Your task to perform on an android device: all mails in gmail Image 0: 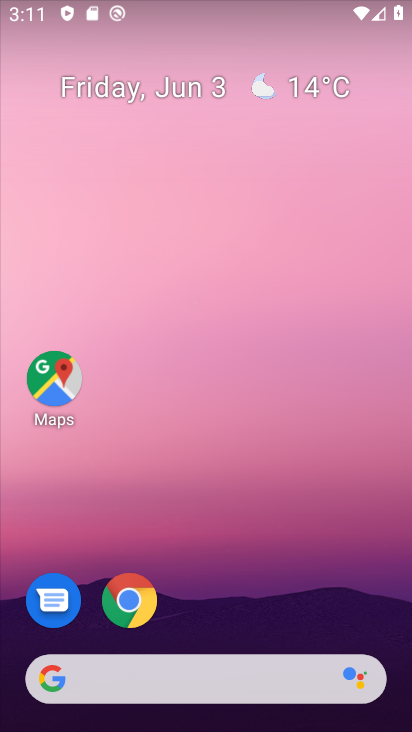
Step 0: drag from (299, 580) to (280, 201)
Your task to perform on an android device: all mails in gmail Image 1: 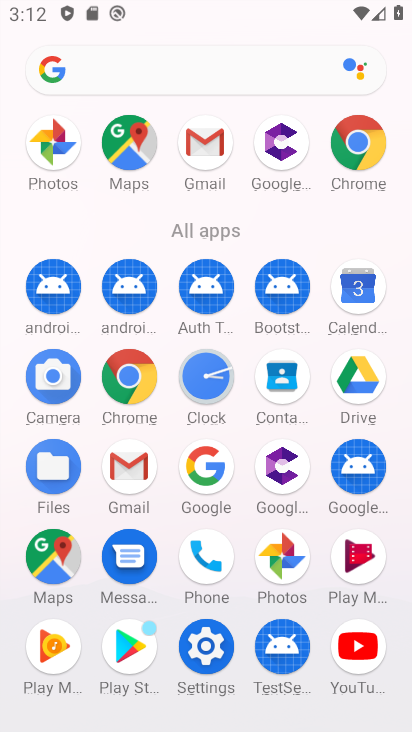
Step 1: click (204, 152)
Your task to perform on an android device: all mails in gmail Image 2: 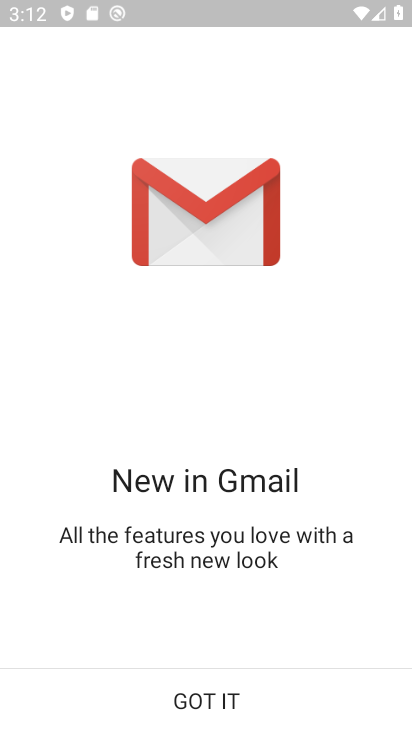
Step 2: click (213, 702)
Your task to perform on an android device: all mails in gmail Image 3: 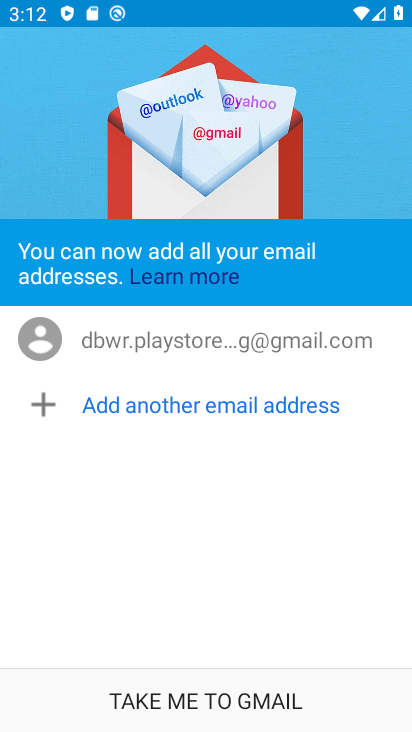
Step 3: click (213, 702)
Your task to perform on an android device: all mails in gmail Image 4: 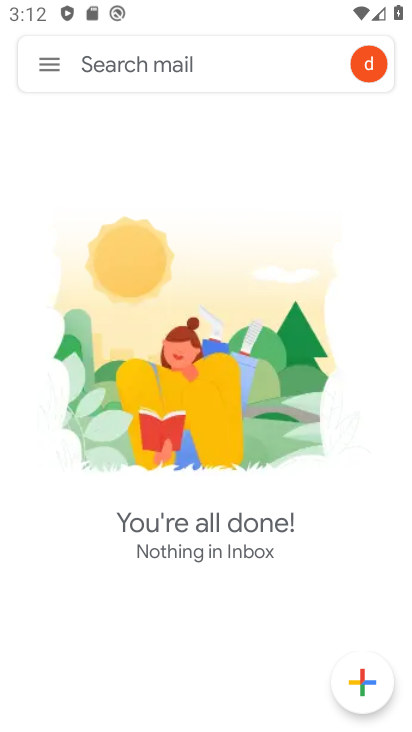
Step 4: click (54, 73)
Your task to perform on an android device: all mails in gmail Image 5: 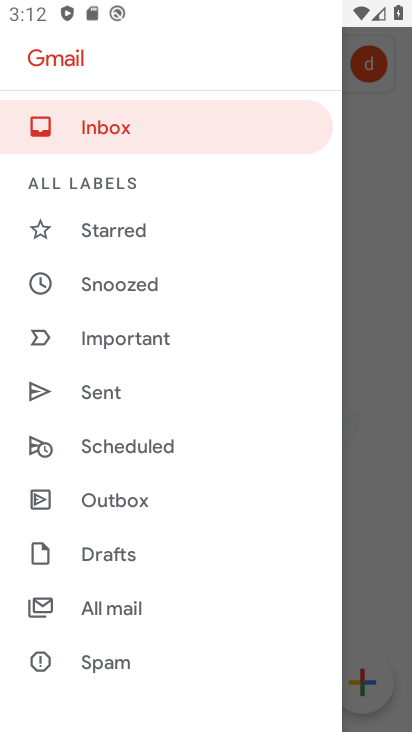
Step 5: click (99, 615)
Your task to perform on an android device: all mails in gmail Image 6: 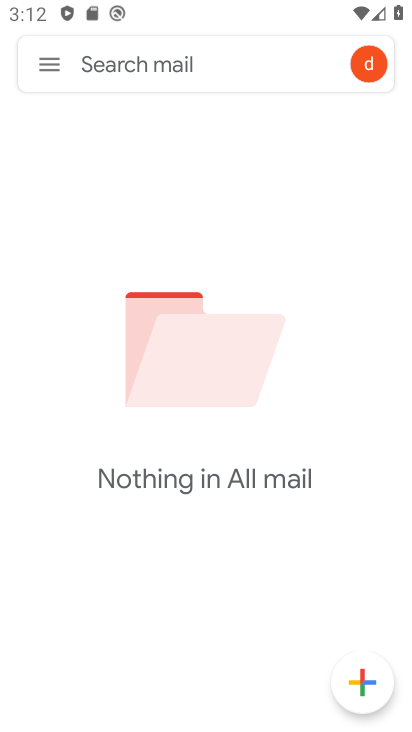
Step 6: task complete